Your task to perform on an android device: set the stopwatch Image 0: 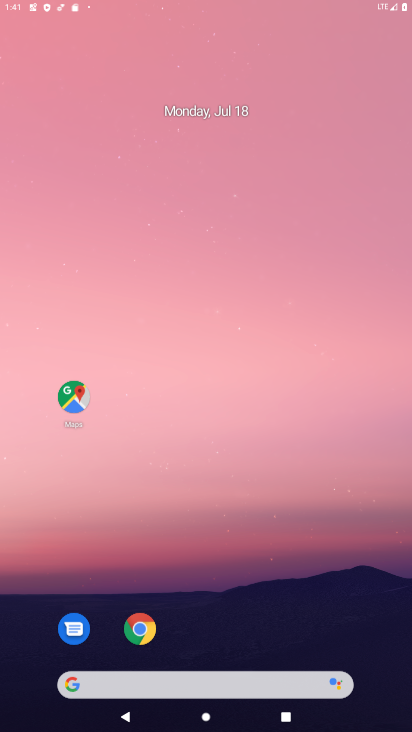
Step 0: press home button
Your task to perform on an android device: set the stopwatch Image 1: 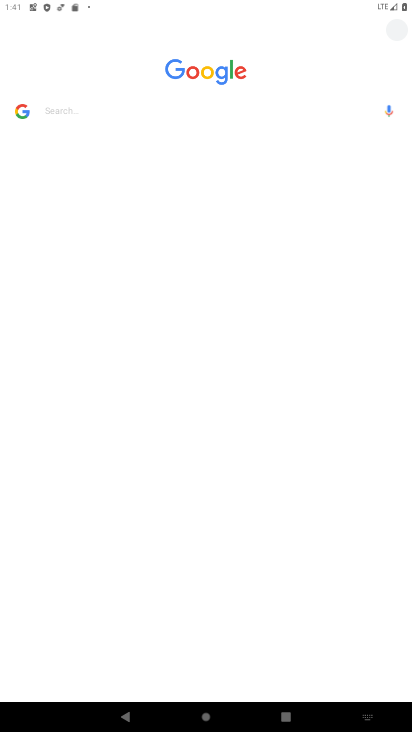
Step 1: drag from (228, 612) to (218, 58)
Your task to perform on an android device: set the stopwatch Image 2: 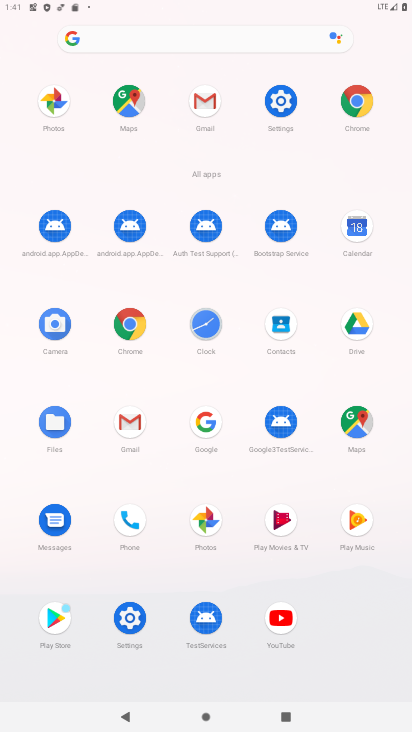
Step 2: click (202, 321)
Your task to perform on an android device: set the stopwatch Image 3: 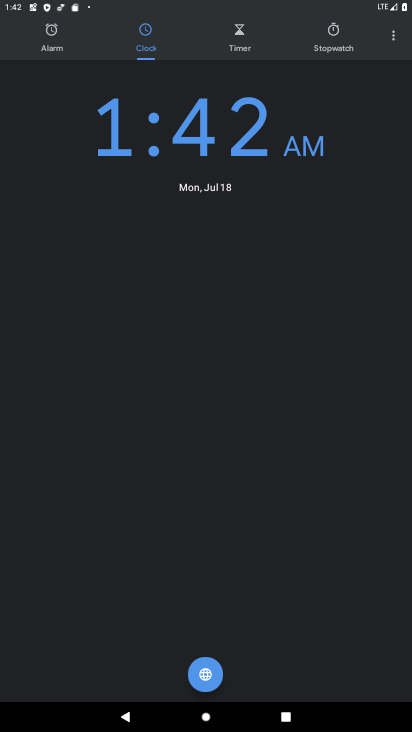
Step 3: click (328, 35)
Your task to perform on an android device: set the stopwatch Image 4: 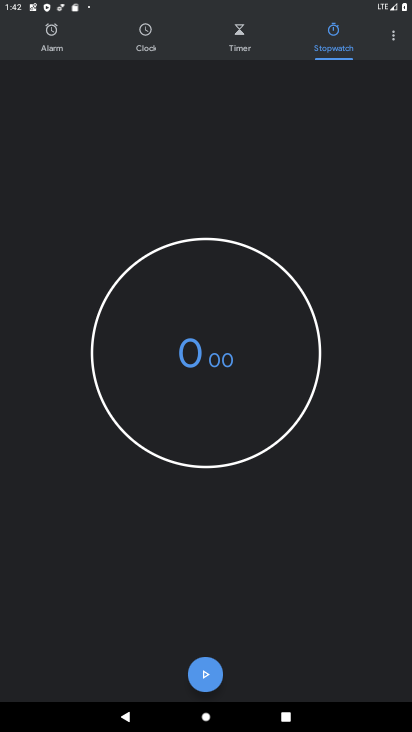
Step 4: click (205, 669)
Your task to perform on an android device: set the stopwatch Image 5: 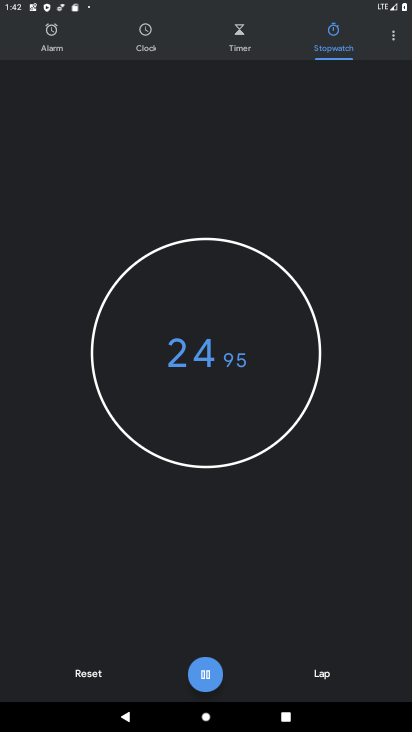
Step 5: task complete